Your task to perform on an android device: open app "Spotify: Music and Podcasts" (install if not already installed) Image 0: 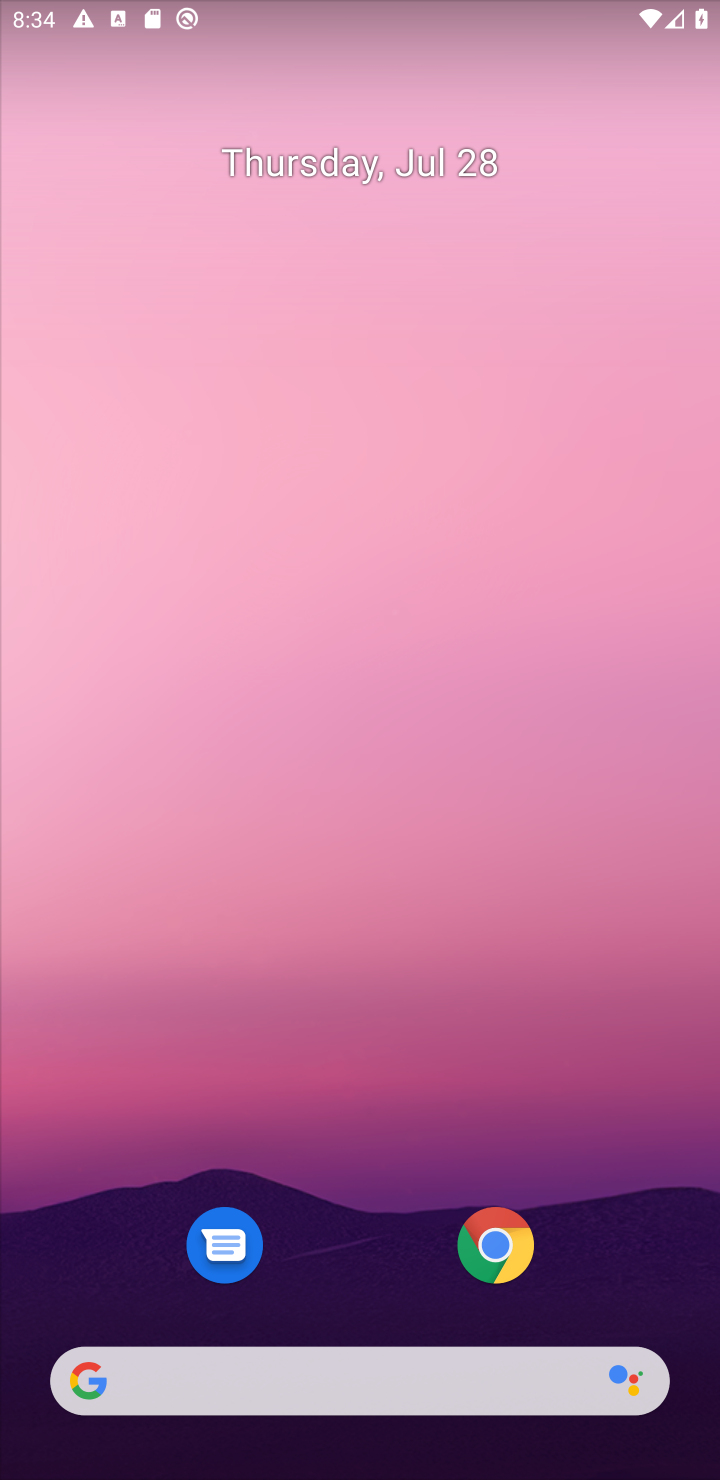
Step 0: drag from (305, 1178) to (243, 97)
Your task to perform on an android device: open app "Spotify: Music and Podcasts" (install if not already installed) Image 1: 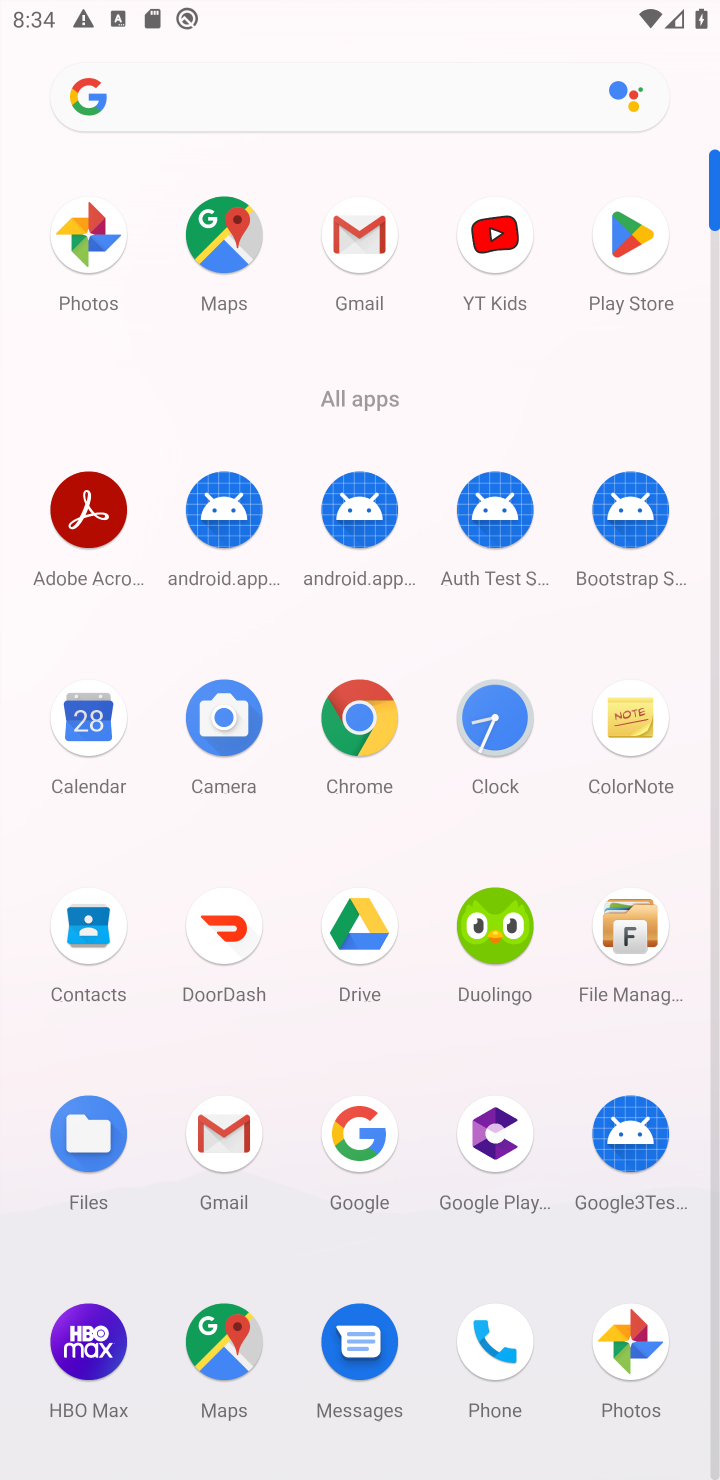
Step 1: click (626, 263)
Your task to perform on an android device: open app "Spotify: Music and Podcasts" (install if not already installed) Image 2: 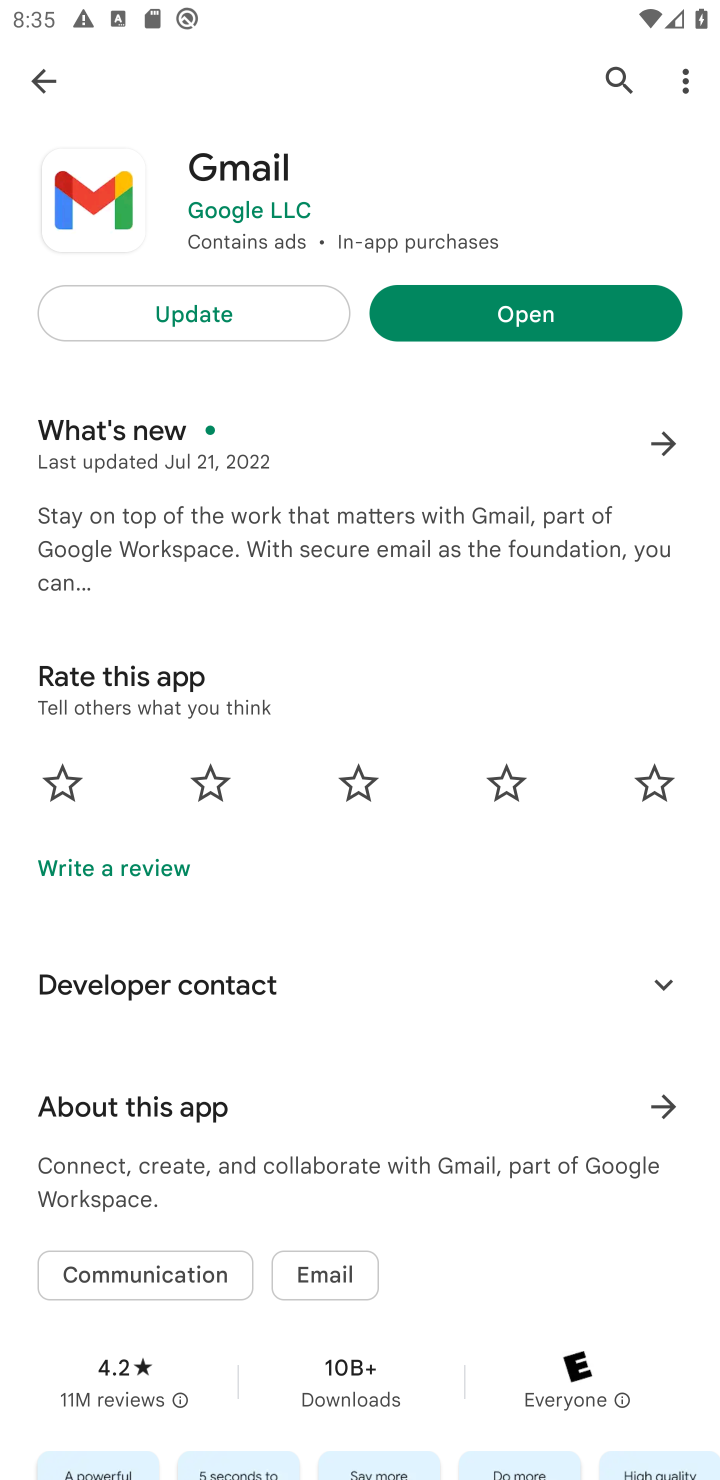
Step 2: click (620, 79)
Your task to perform on an android device: open app "Spotify: Music and Podcasts" (install if not already installed) Image 3: 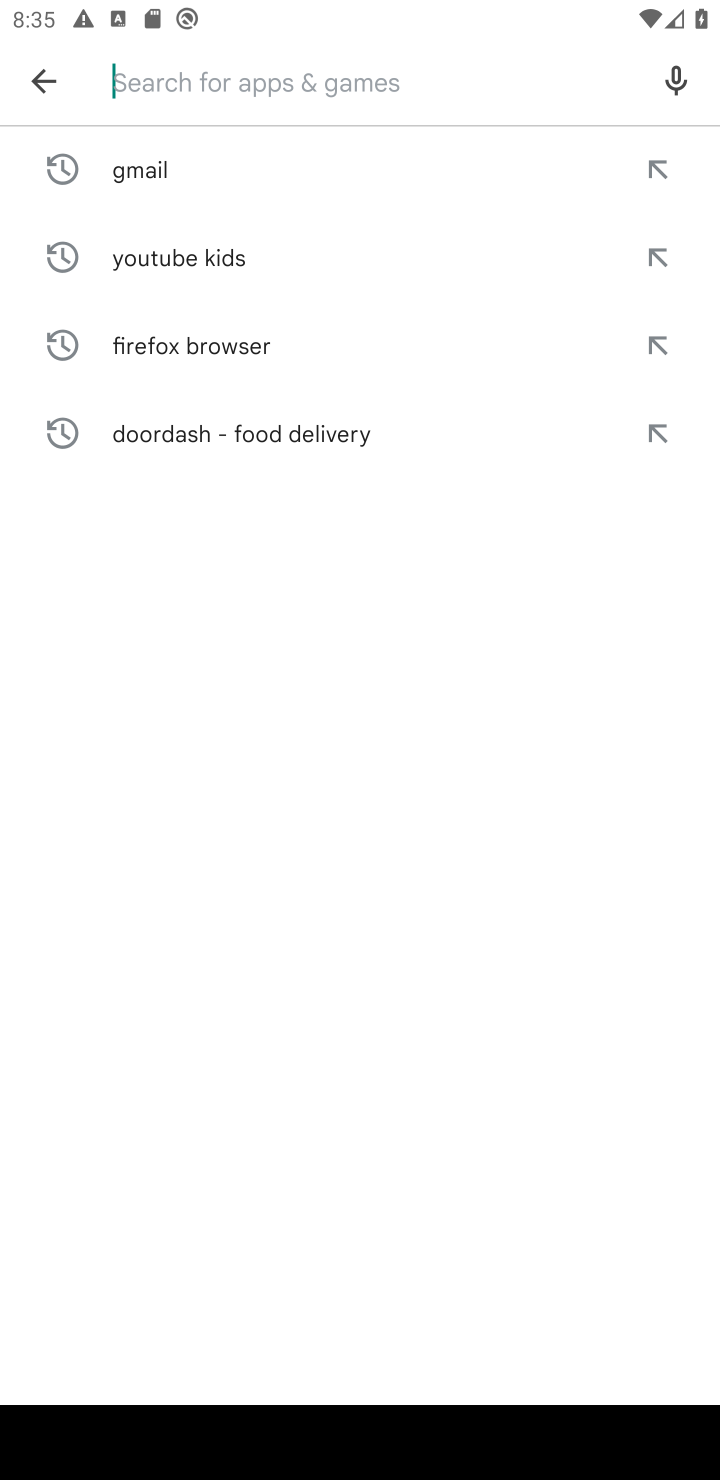
Step 3: type "Spotify: Music and Podcasts"
Your task to perform on an android device: open app "Spotify: Music and Podcasts" (install if not already installed) Image 4: 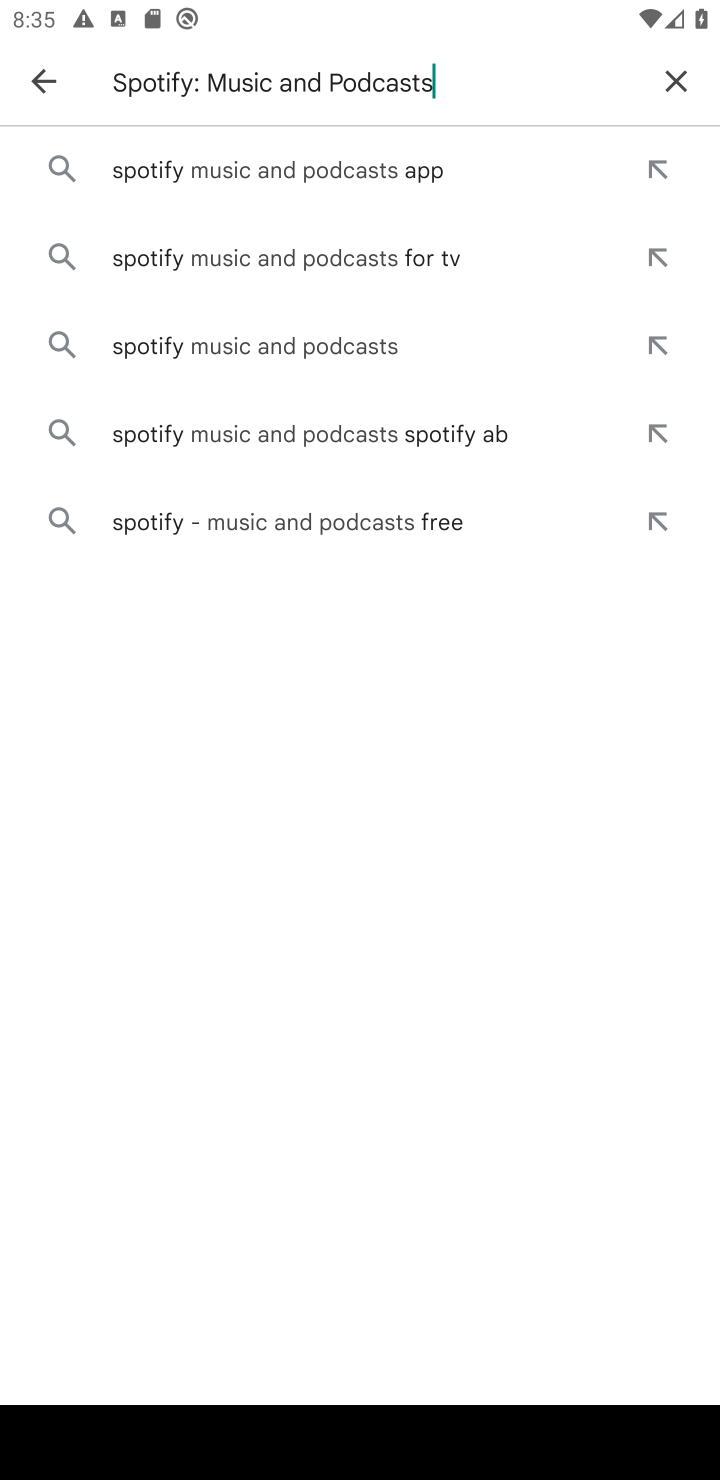
Step 4: click (217, 154)
Your task to perform on an android device: open app "Spotify: Music and Podcasts" (install if not already installed) Image 5: 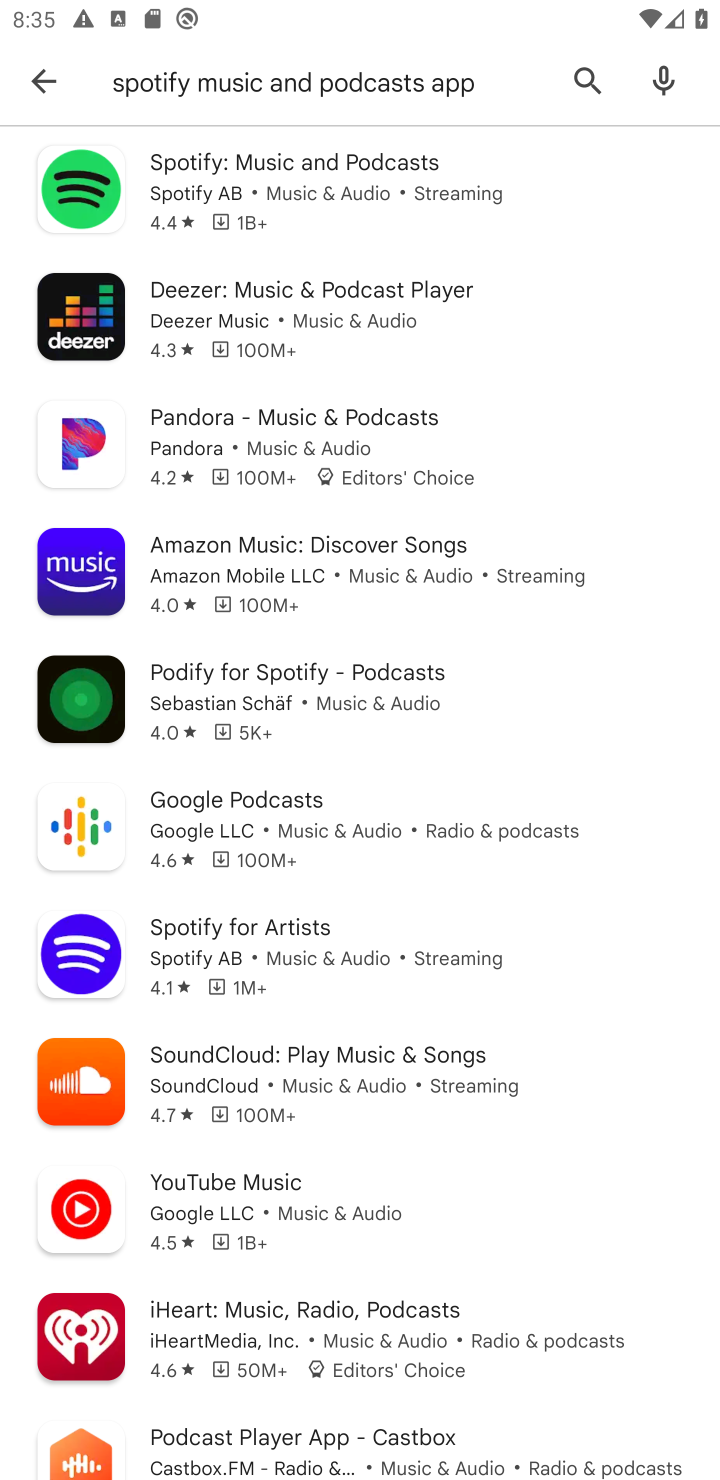
Step 5: click (307, 170)
Your task to perform on an android device: open app "Spotify: Music and Podcasts" (install if not already installed) Image 6: 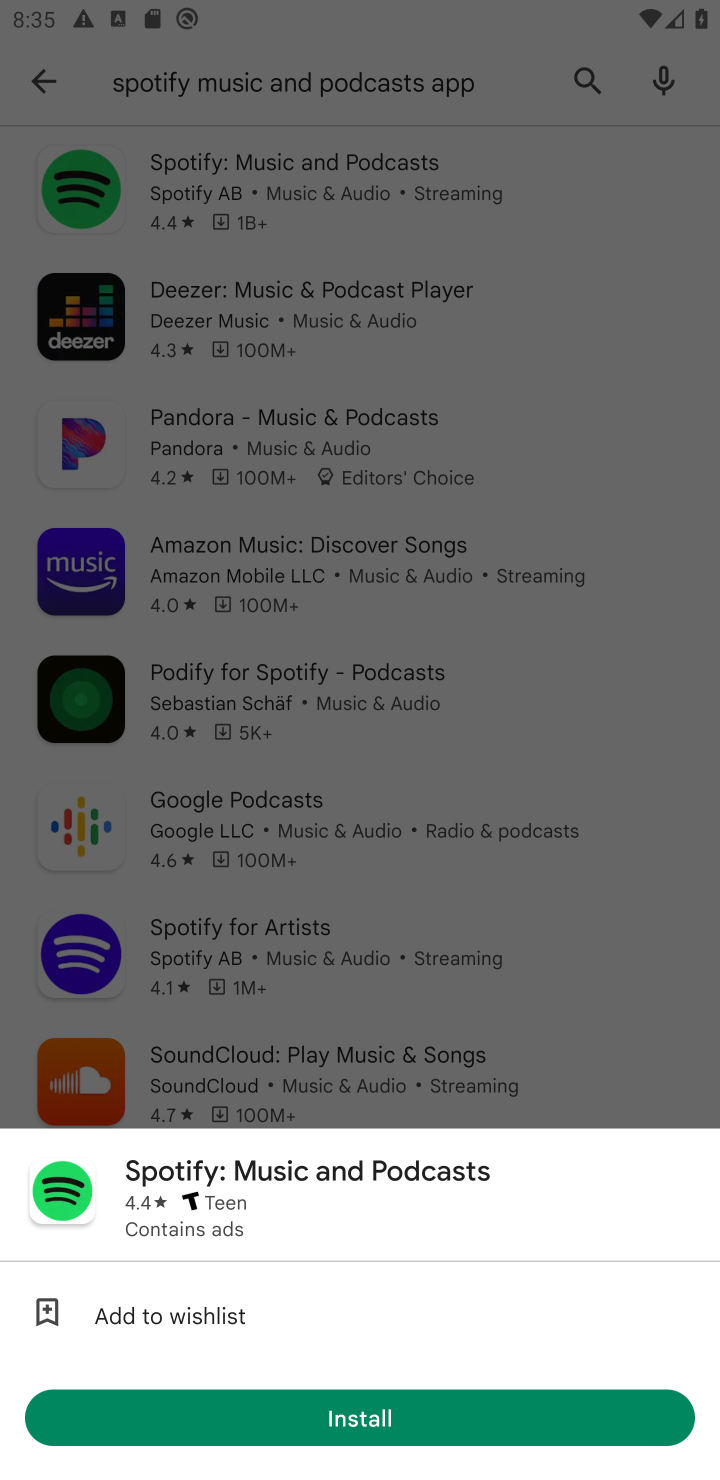
Step 6: click (402, 1421)
Your task to perform on an android device: open app "Spotify: Music and Podcasts" (install if not already installed) Image 7: 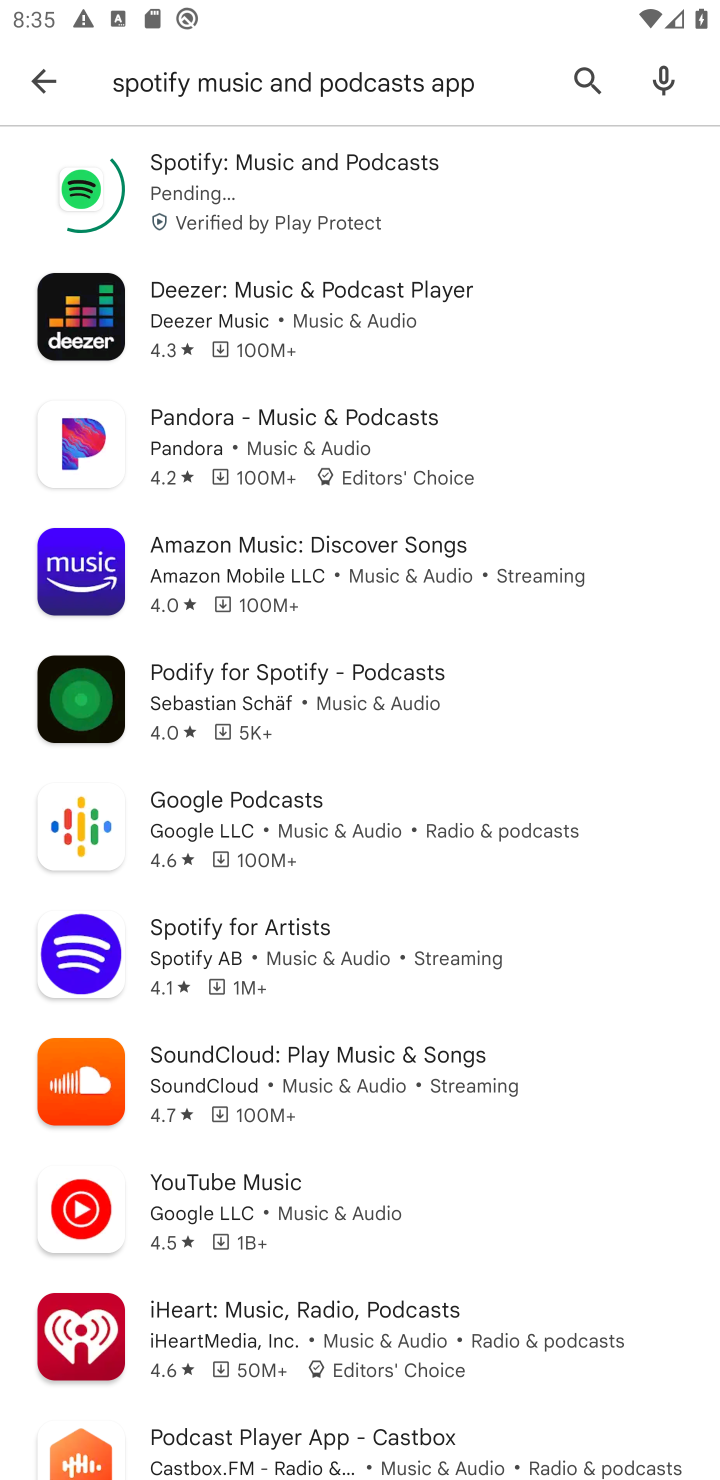
Step 7: click (351, 169)
Your task to perform on an android device: open app "Spotify: Music and Podcasts" (install if not already installed) Image 8: 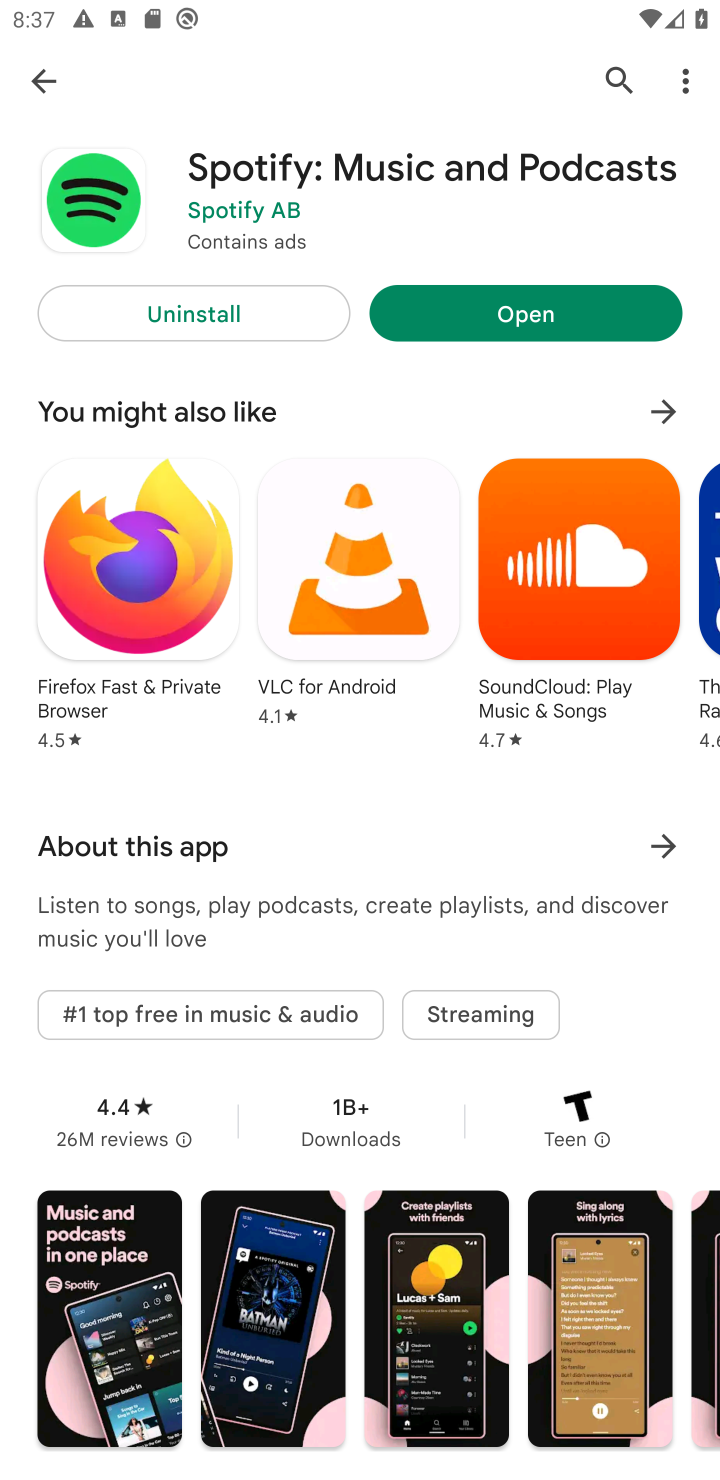
Step 8: click (579, 323)
Your task to perform on an android device: open app "Spotify: Music and Podcasts" (install if not already installed) Image 9: 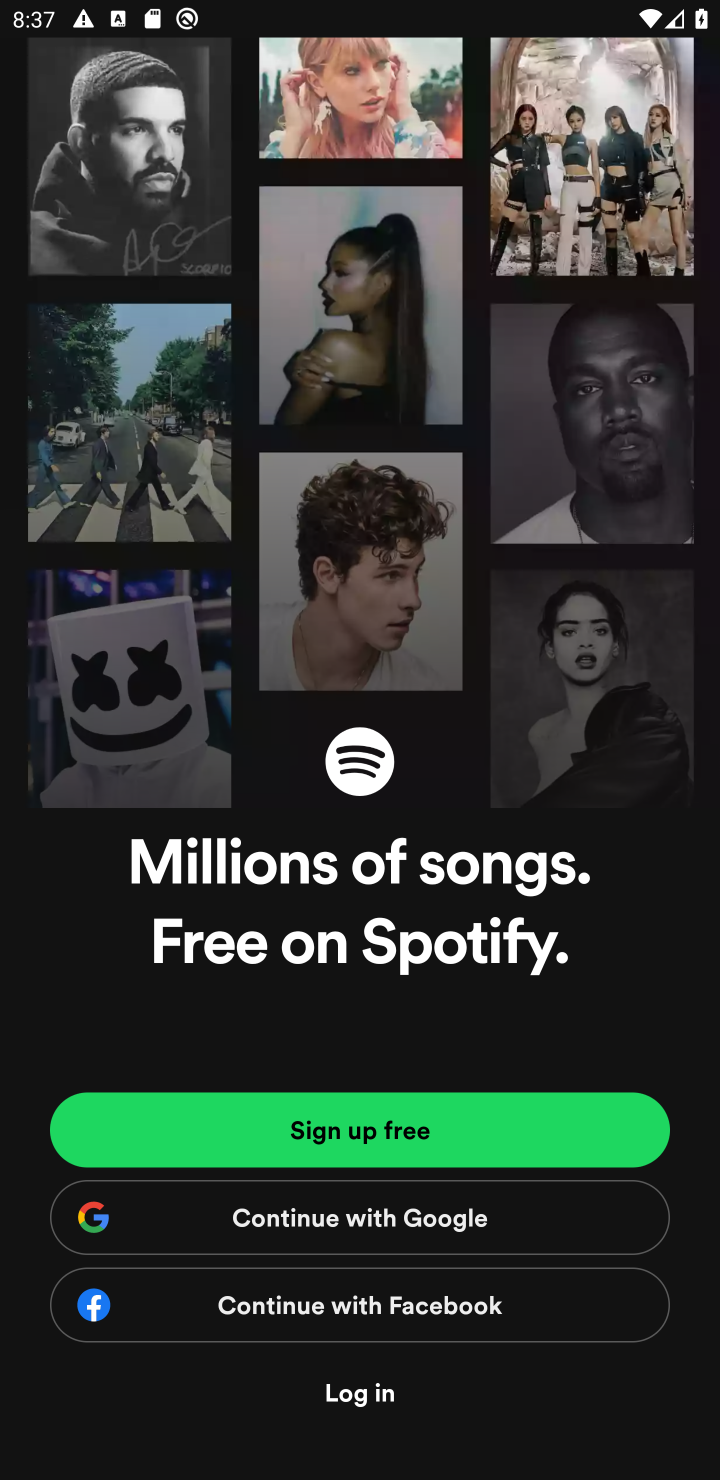
Step 9: task complete